Your task to perform on an android device: turn on showing notifications on the lock screen Image 0: 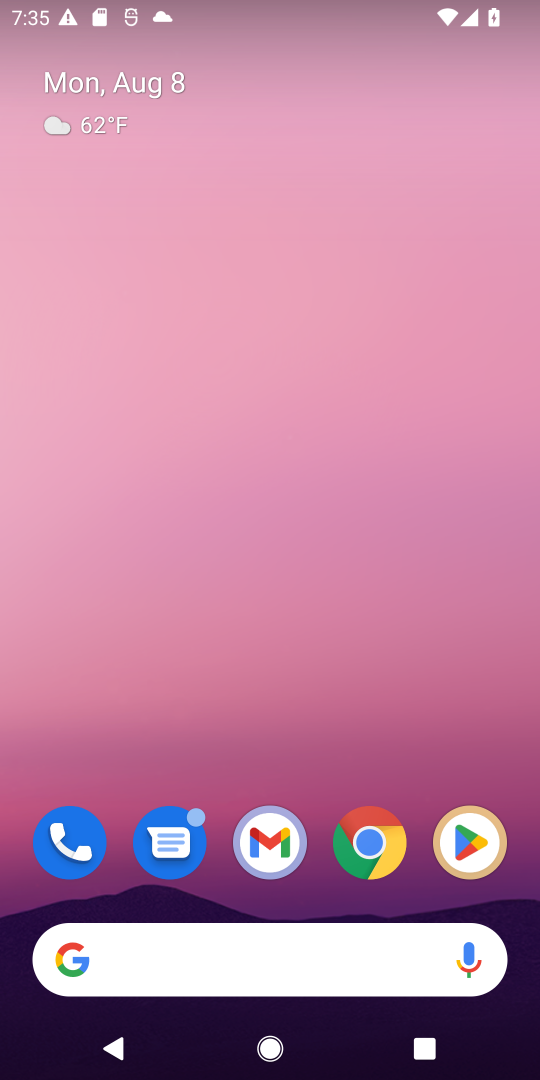
Step 0: drag from (259, 728) to (361, 3)
Your task to perform on an android device: turn on showing notifications on the lock screen Image 1: 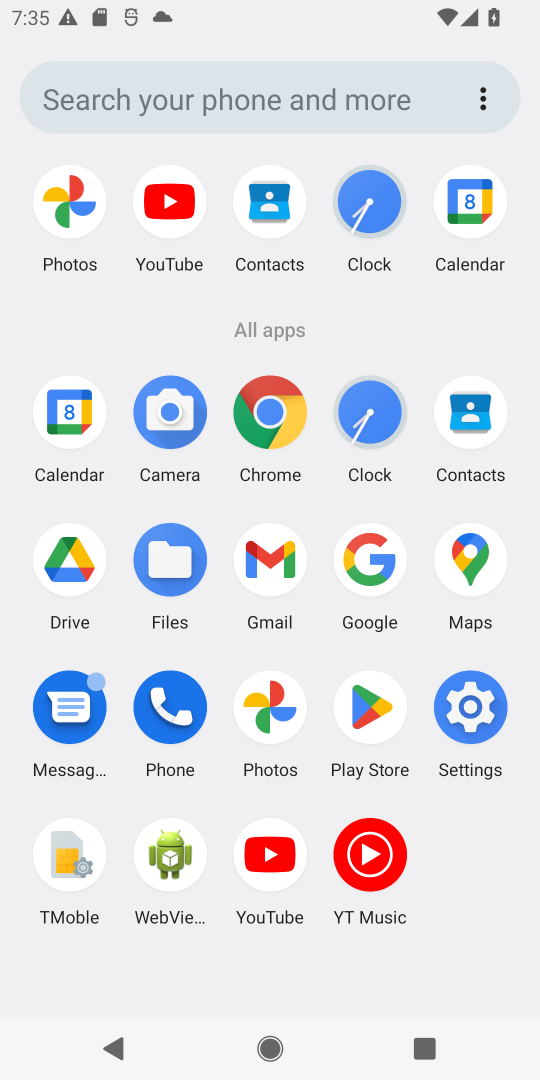
Step 1: click (481, 700)
Your task to perform on an android device: turn on showing notifications on the lock screen Image 2: 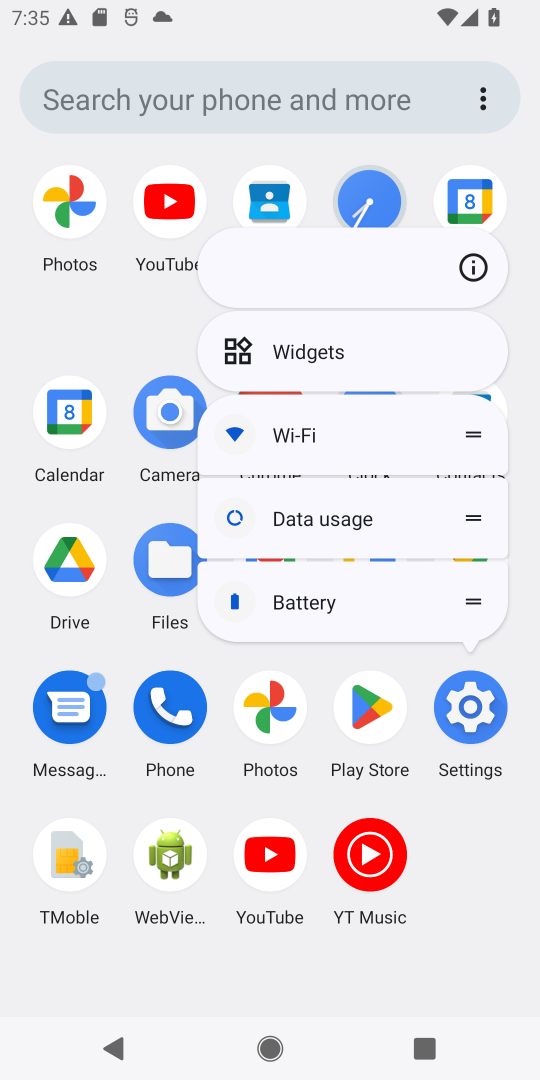
Step 2: click (481, 702)
Your task to perform on an android device: turn on showing notifications on the lock screen Image 3: 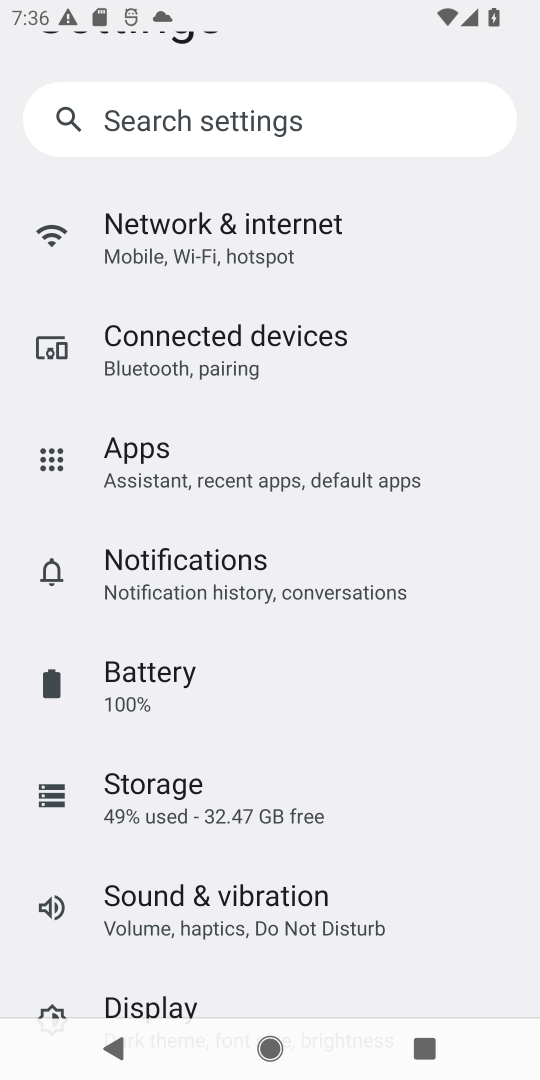
Step 3: click (332, 574)
Your task to perform on an android device: turn on showing notifications on the lock screen Image 4: 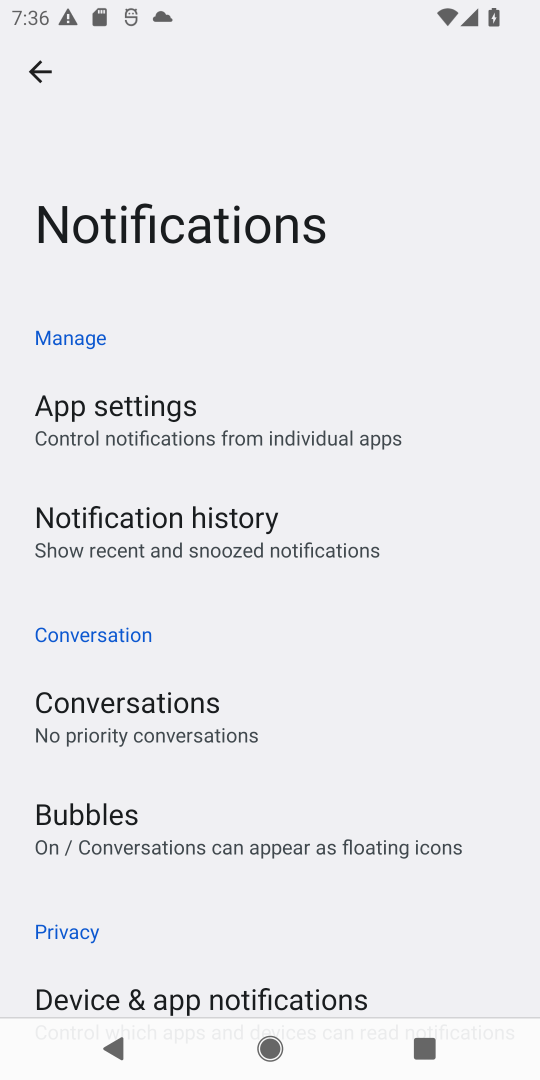
Step 4: drag from (320, 755) to (361, 115)
Your task to perform on an android device: turn on showing notifications on the lock screen Image 5: 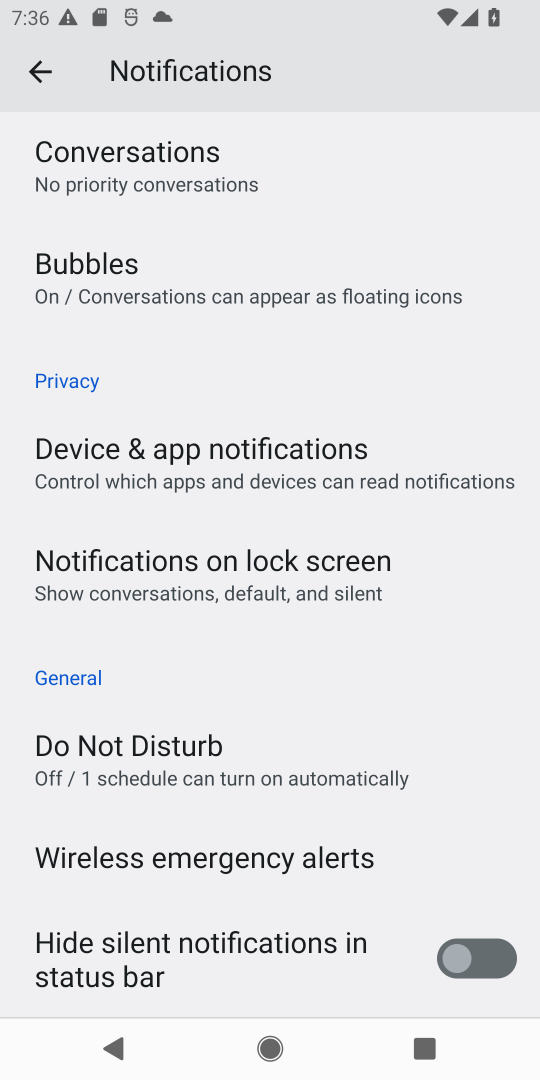
Step 5: click (391, 574)
Your task to perform on an android device: turn on showing notifications on the lock screen Image 6: 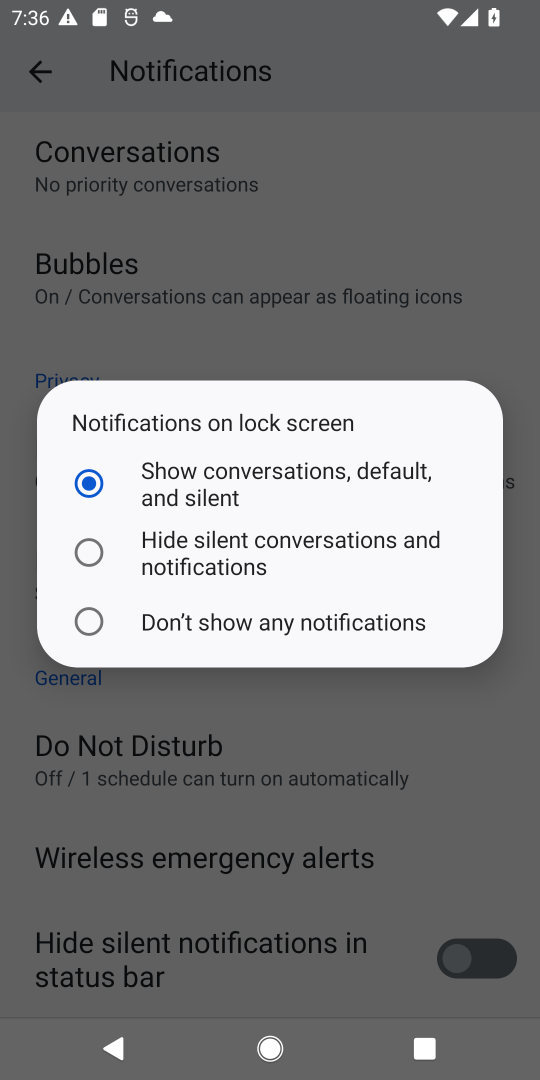
Step 6: click (405, 478)
Your task to perform on an android device: turn on showing notifications on the lock screen Image 7: 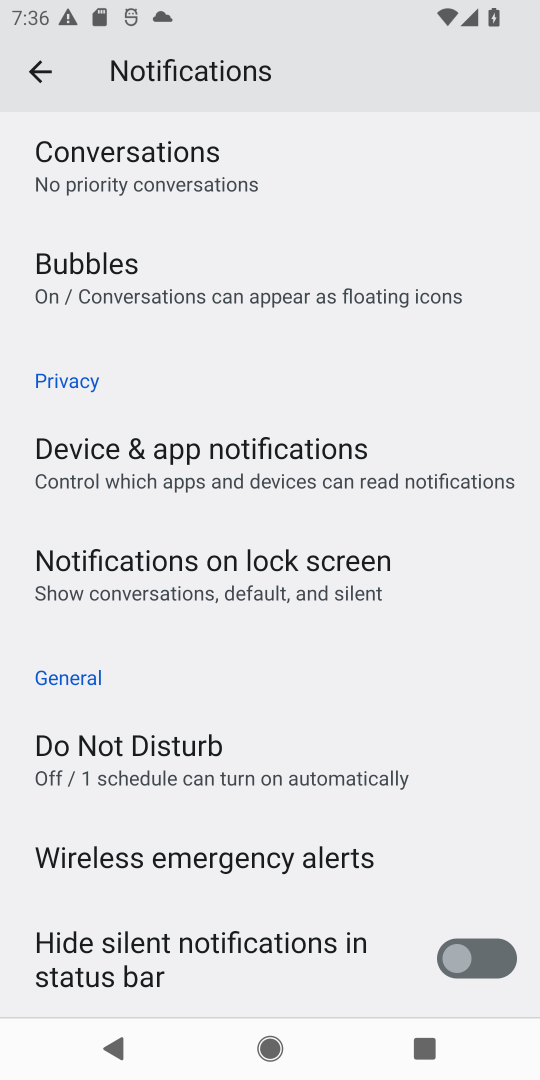
Step 7: task complete